Your task to perform on an android device: Open Maps and search for coffee Image 0: 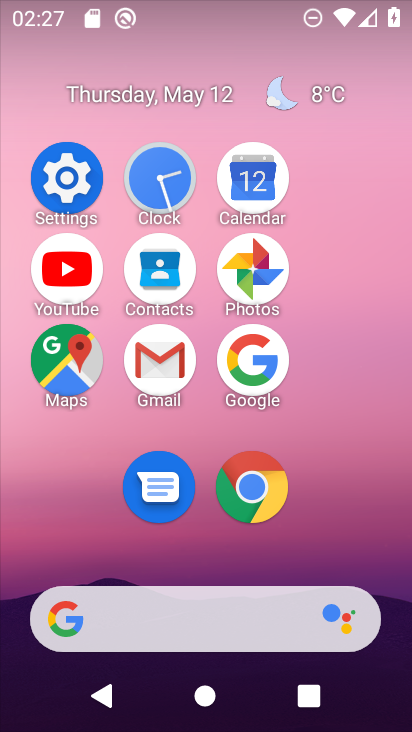
Step 0: click (88, 360)
Your task to perform on an android device: Open Maps and search for coffee Image 1: 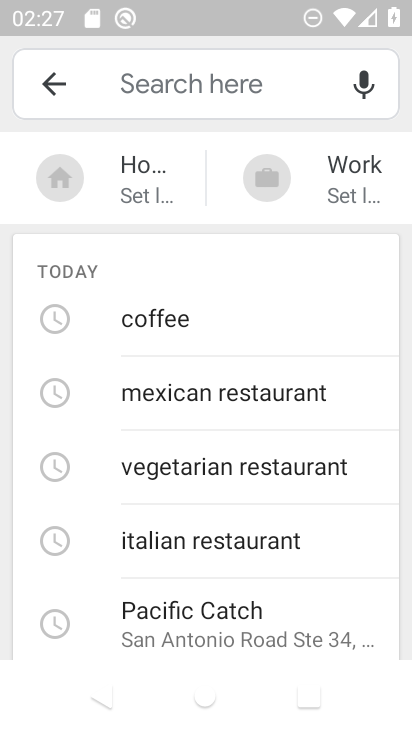
Step 1: click (201, 311)
Your task to perform on an android device: Open Maps and search for coffee Image 2: 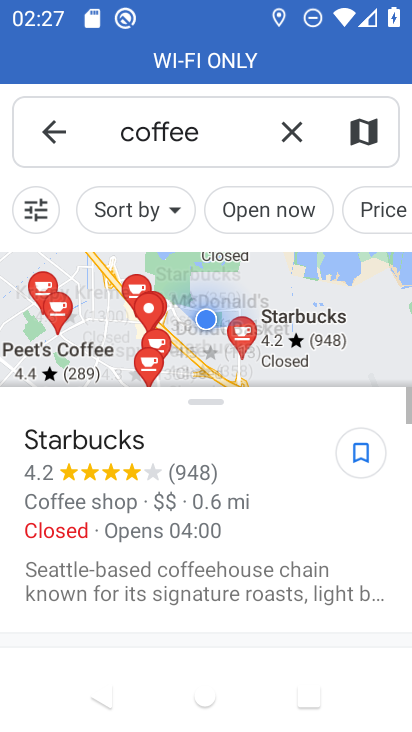
Step 2: task complete